Your task to perform on an android device: remove spam from my inbox in the gmail app Image 0: 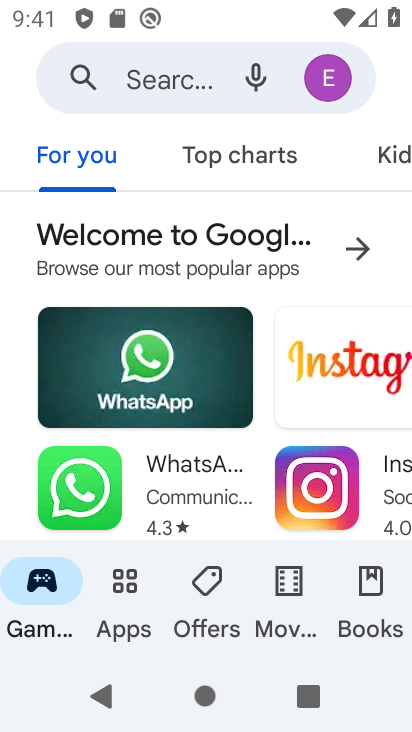
Step 0: press back button
Your task to perform on an android device: remove spam from my inbox in the gmail app Image 1: 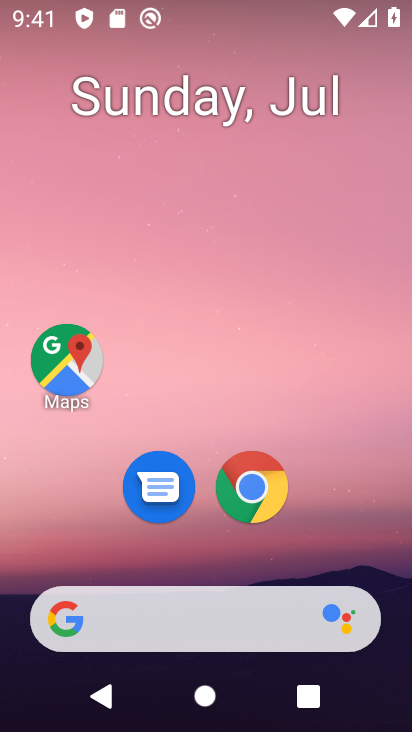
Step 1: drag from (187, 495) to (239, 0)
Your task to perform on an android device: remove spam from my inbox in the gmail app Image 2: 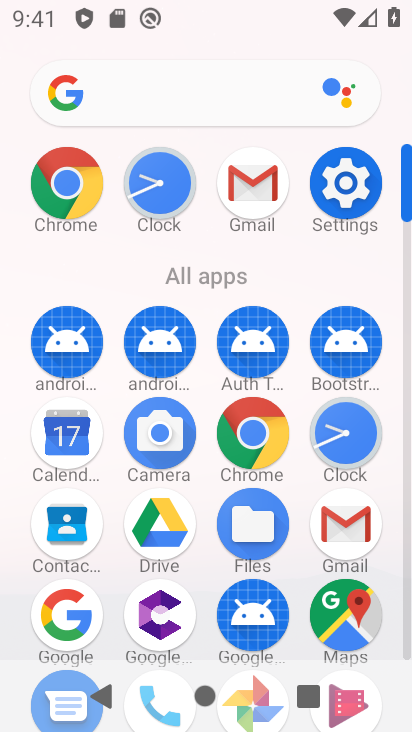
Step 2: click (245, 204)
Your task to perform on an android device: remove spam from my inbox in the gmail app Image 3: 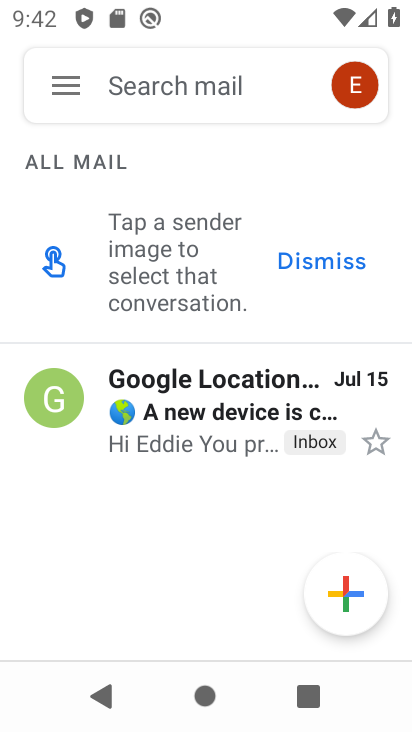
Step 3: click (78, 77)
Your task to perform on an android device: remove spam from my inbox in the gmail app Image 4: 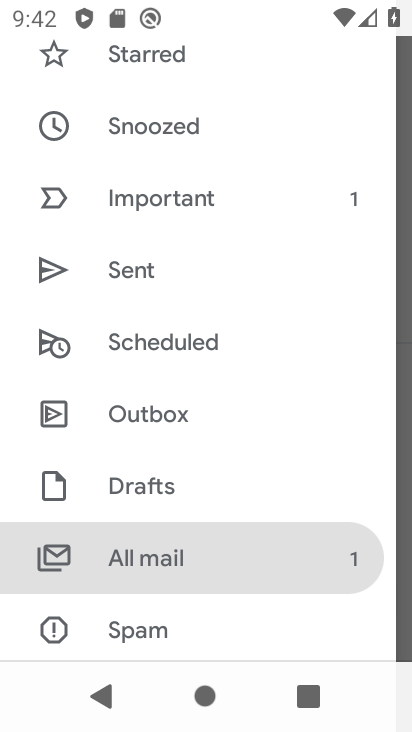
Step 4: click (156, 623)
Your task to perform on an android device: remove spam from my inbox in the gmail app Image 5: 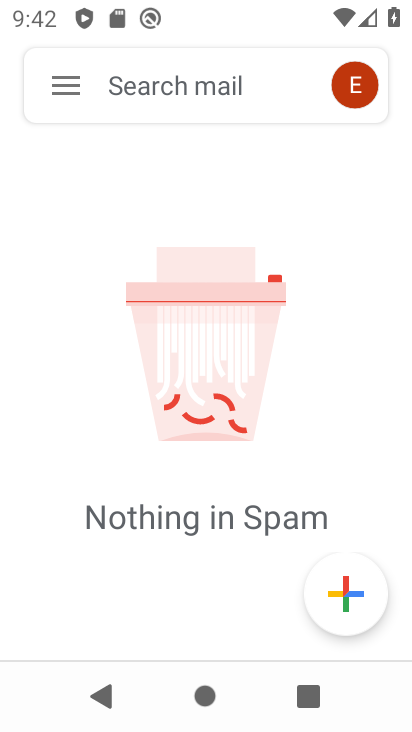
Step 5: task complete